Your task to perform on an android device: search for starred emails in the gmail app Image 0: 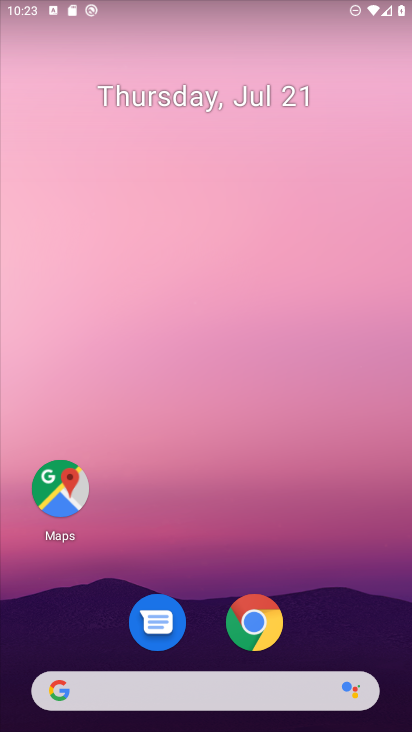
Step 0: drag from (218, 604) to (191, 17)
Your task to perform on an android device: search for starred emails in the gmail app Image 1: 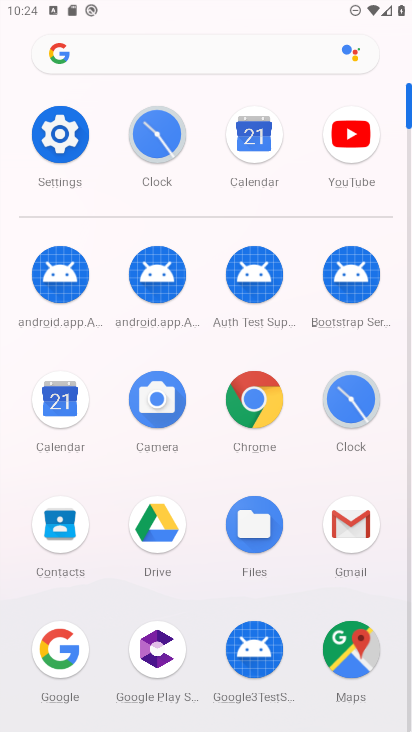
Step 1: click (358, 523)
Your task to perform on an android device: search for starred emails in the gmail app Image 2: 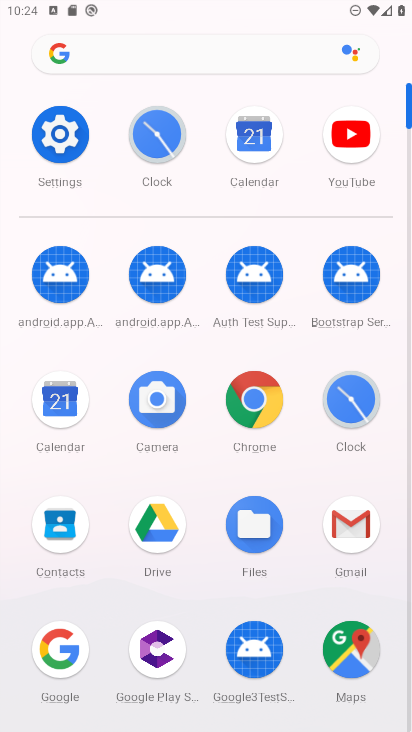
Step 2: click (358, 523)
Your task to perform on an android device: search for starred emails in the gmail app Image 3: 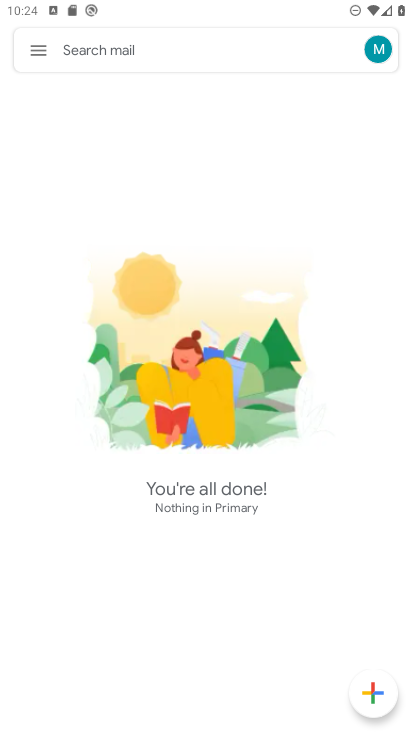
Step 3: click (38, 46)
Your task to perform on an android device: search for starred emails in the gmail app Image 4: 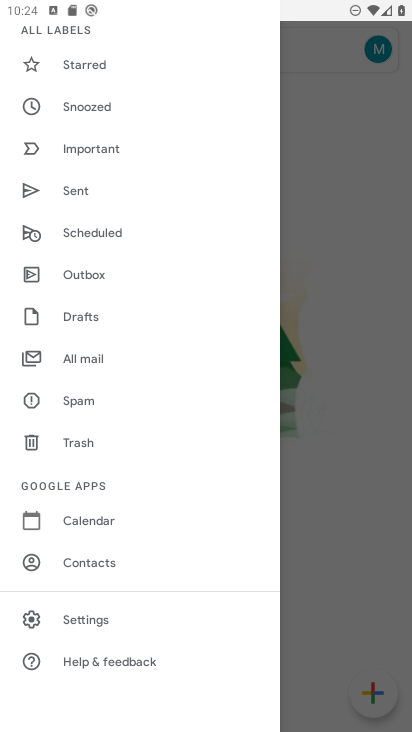
Step 4: click (100, 64)
Your task to perform on an android device: search for starred emails in the gmail app Image 5: 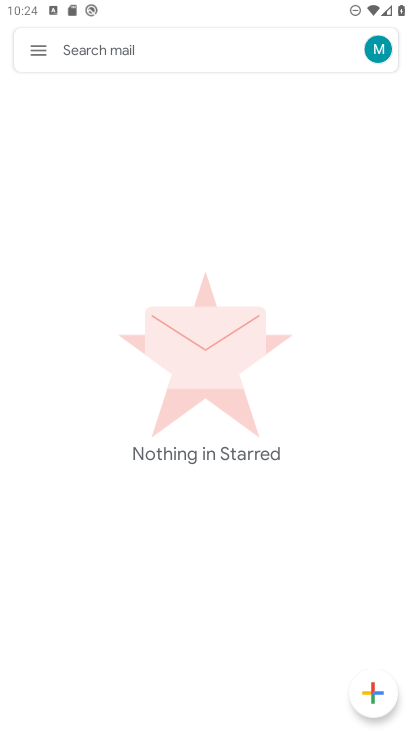
Step 5: task complete